Your task to perform on an android device: change the clock display to digital Image 0: 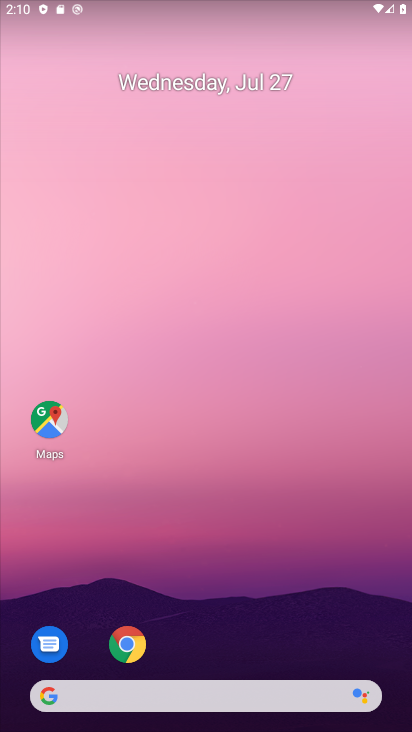
Step 0: drag from (221, 661) to (217, 151)
Your task to perform on an android device: change the clock display to digital Image 1: 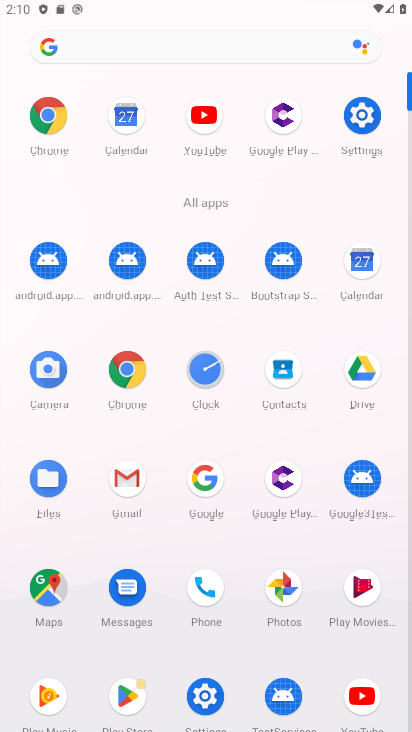
Step 1: click (204, 358)
Your task to perform on an android device: change the clock display to digital Image 2: 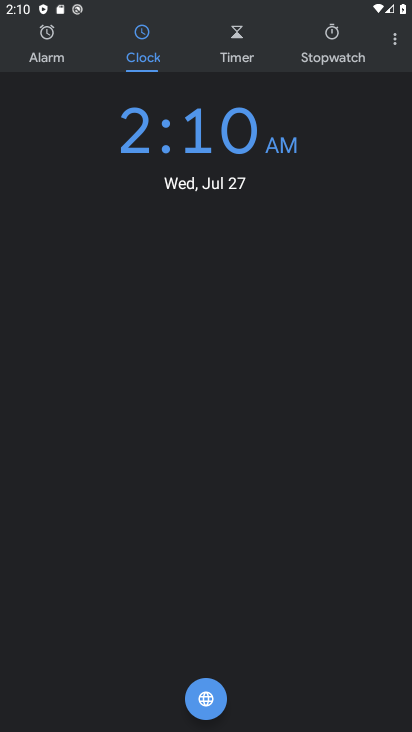
Step 2: click (399, 50)
Your task to perform on an android device: change the clock display to digital Image 3: 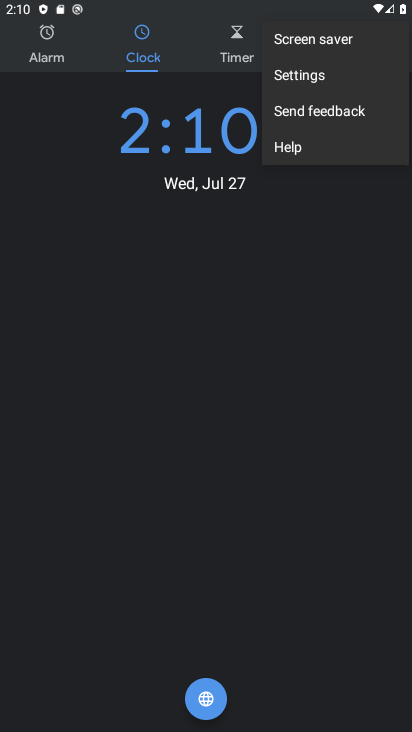
Step 3: click (335, 82)
Your task to perform on an android device: change the clock display to digital Image 4: 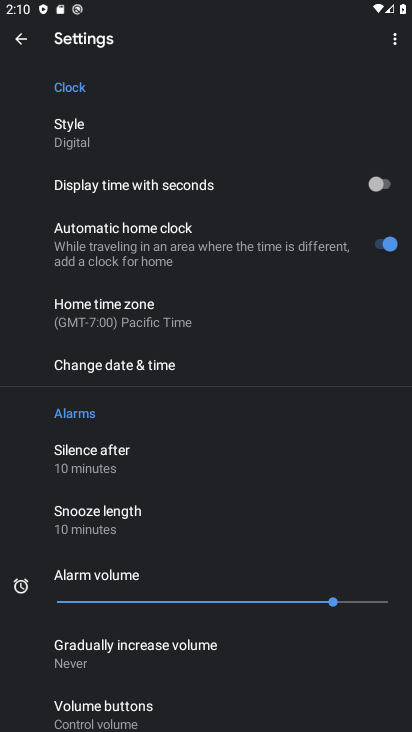
Step 4: task complete